Your task to perform on an android device: open app "Adobe Express: Graphic Design" (install if not already installed) Image 0: 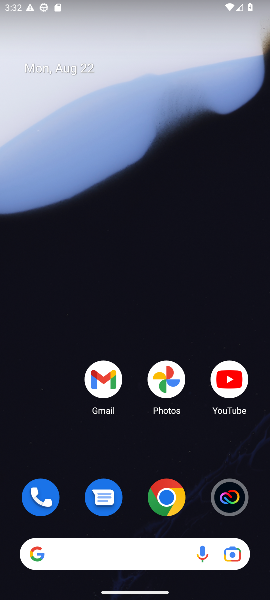
Step 0: drag from (133, 450) to (121, 58)
Your task to perform on an android device: open app "Adobe Express: Graphic Design" (install if not already installed) Image 1: 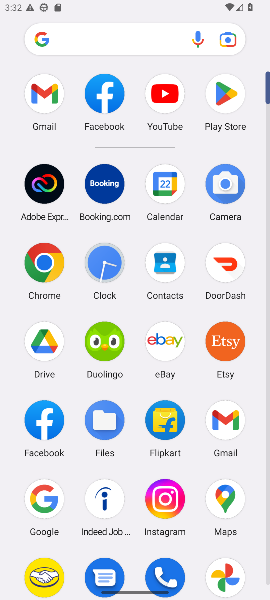
Step 1: click (231, 105)
Your task to perform on an android device: open app "Adobe Express: Graphic Design" (install if not already installed) Image 2: 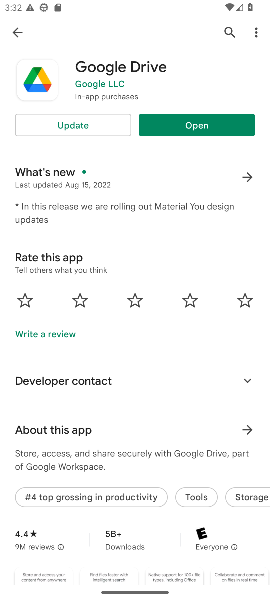
Step 2: click (226, 25)
Your task to perform on an android device: open app "Adobe Express: Graphic Design" (install if not already installed) Image 3: 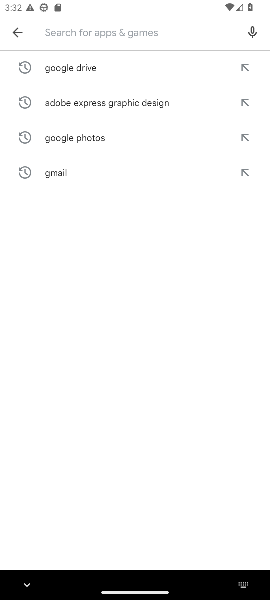
Step 3: type "Adobe Express: Graphic Design"
Your task to perform on an android device: open app "Adobe Express: Graphic Design" (install if not already installed) Image 4: 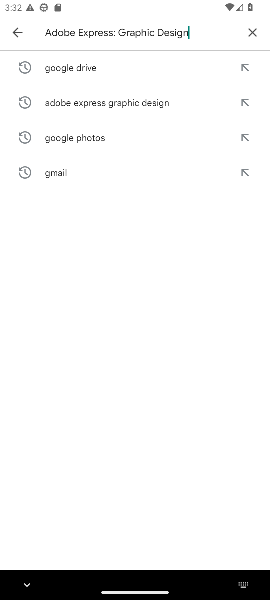
Step 4: type ""
Your task to perform on an android device: open app "Adobe Express: Graphic Design" (install if not already installed) Image 5: 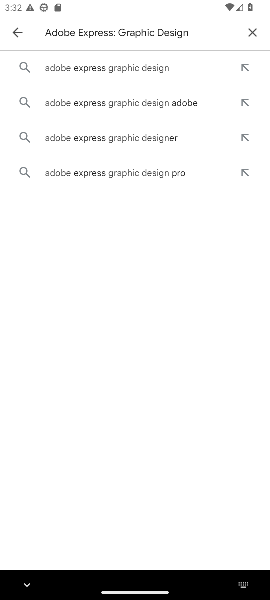
Step 5: click (168, 68)
Your task to perform on an android device: open app "Adobe Express: Graphic Design" (install if not already installed) Image 6: 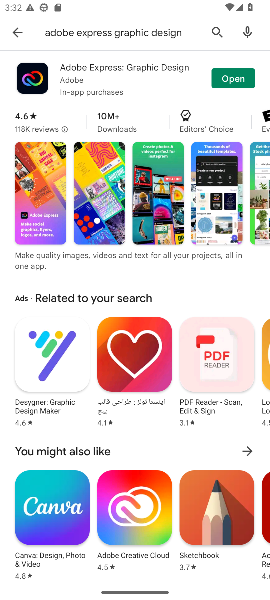
Step 6: click (222, 81)
Your task to perform on an android device: open app "Adobe Express: Graphic Design" (install if not already installed) Image 7: 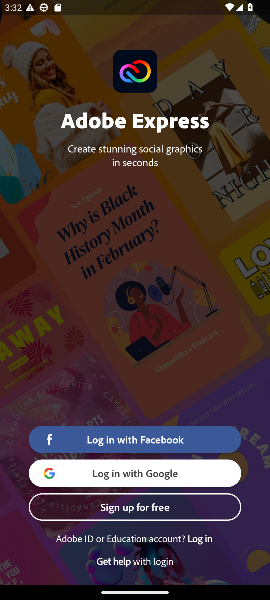
Step 7: task complete